Your task to perform on an android device: check battery use Image 0: 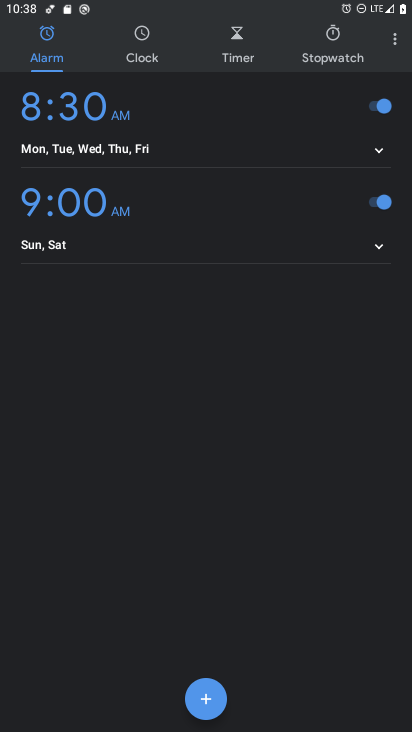
Step 0: press home button
Your task to perform on an android device: check battery use Image 1: 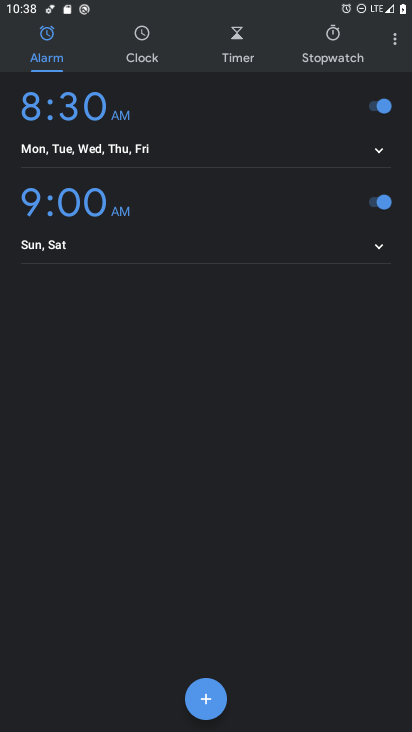
Step 1: press home button
Your task to perform on an android device: check battery use Image 2: 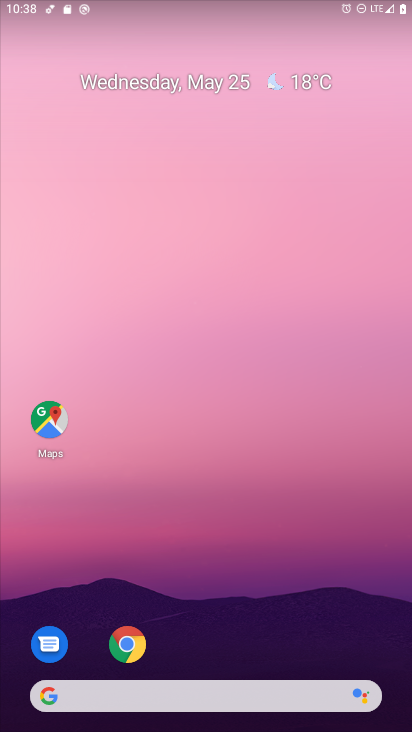
Step 2: drag from (206, 659) to (220, 32)
Your task to perform on an android device: check battery use Image 3: 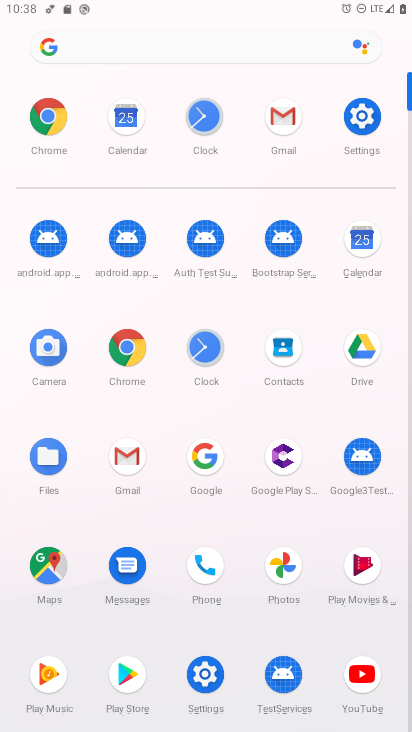
Step 3: click (358, 107)
Your task to perform on an android device: check battery use Image 4: 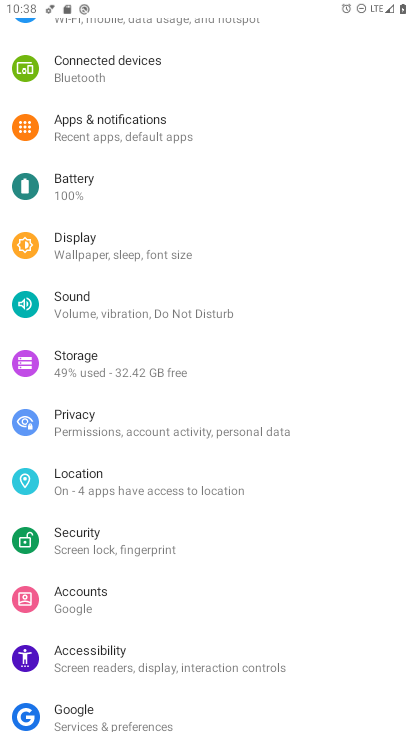
Step 4: click (101, 178)
Your task to perform on an android device: check battery use Image 5: 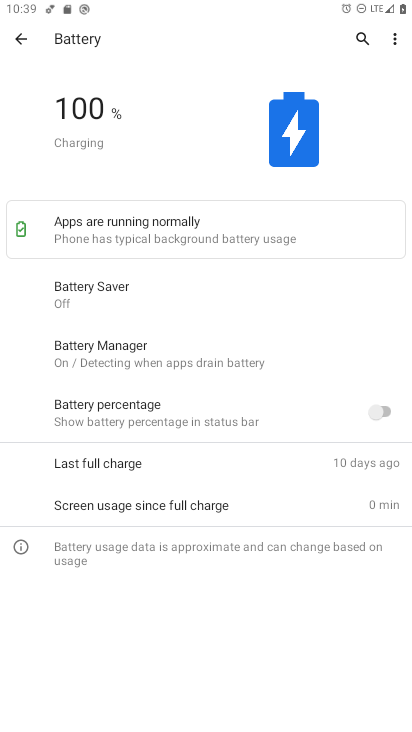
Step 5: click (393, 36)
Your task to perform on an android device: check battery use Image 6: 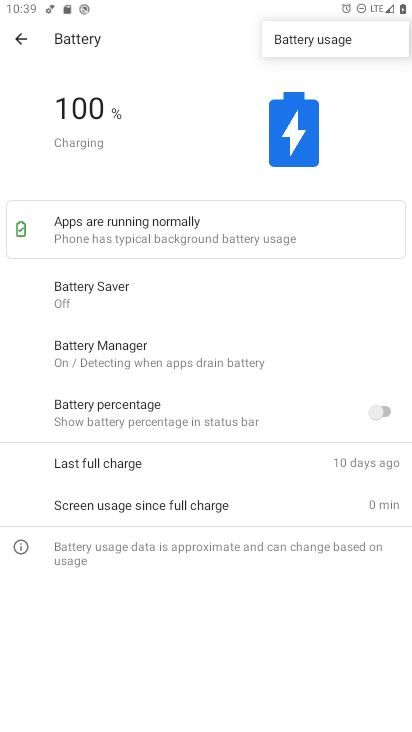
Step 6: click (309, 40)
Your task to perform on an android device: check battery use Image 7: 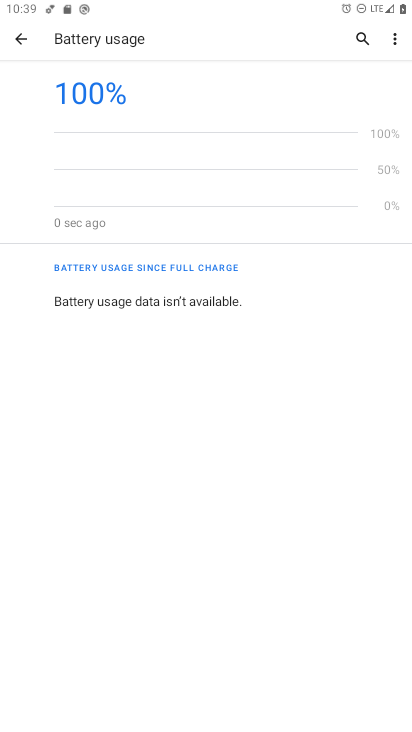
Step 7: task complete